Your task to perform on an android device: turn off sleep mode Image 0: 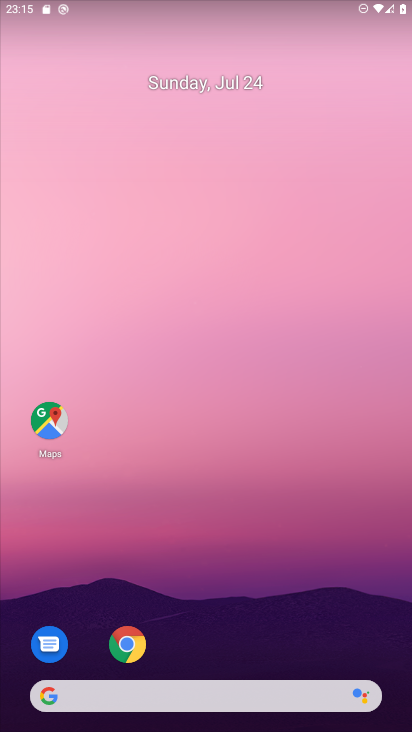
Step 0: drag from (378, 629) to (318, 66)
Your task to perform on an android device: turn off sleep mode Image 1: 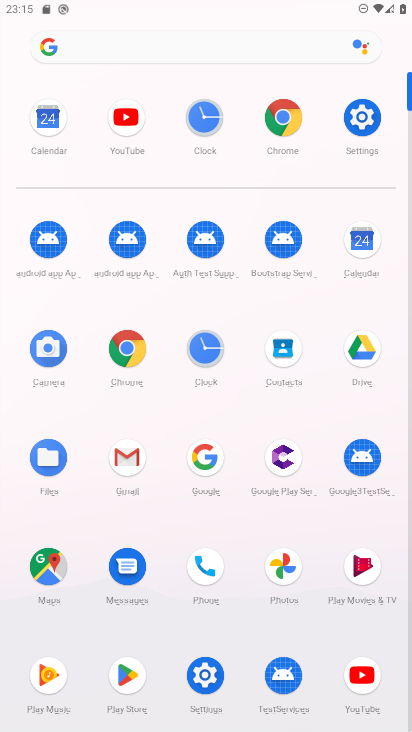
Step 1: click (205, 676)
Your task to perform on an android device: turn off sleep mode Image 2: 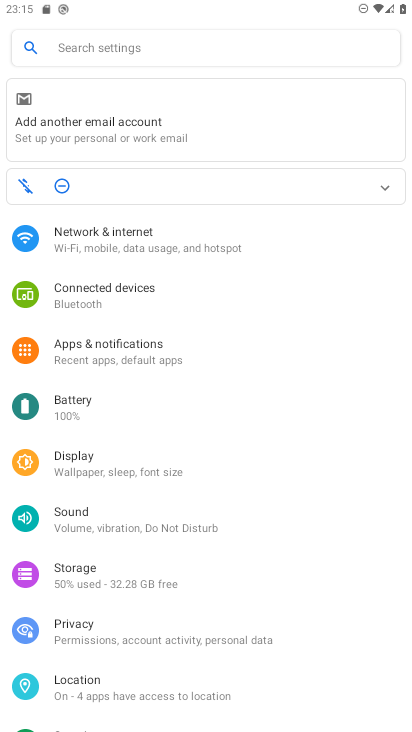
Step 2: click (85, 470)
Your task to perform on an android device: turn off sleep mode Image 3: 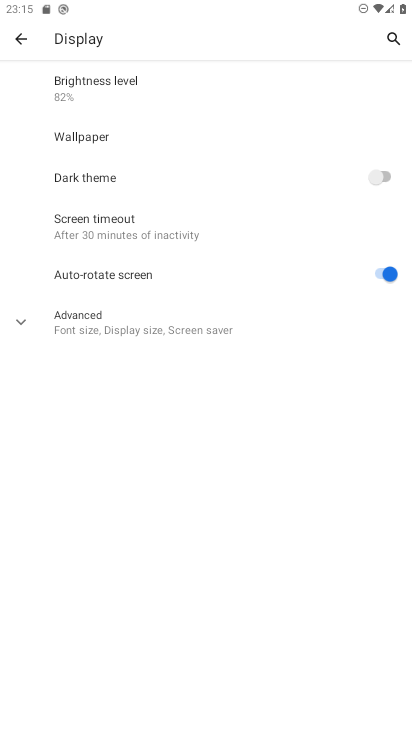
Step 3: click (22, 323)
Your task to perform on an android device: turn off sleep mode Image 4: 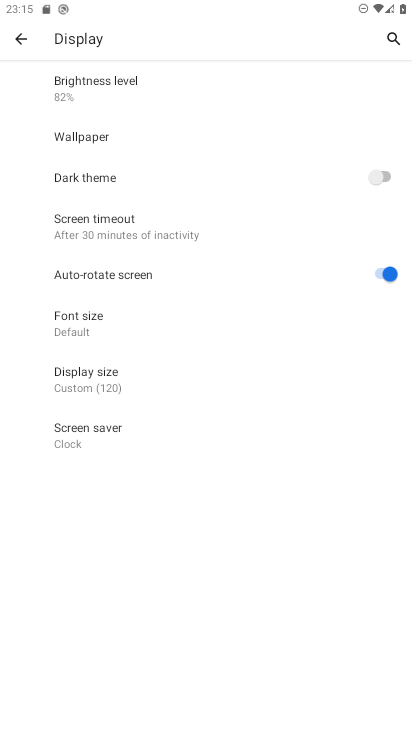
Step 4: task complete